Your task to perform on an android device: toggle pop-ups in chrome Image 0: 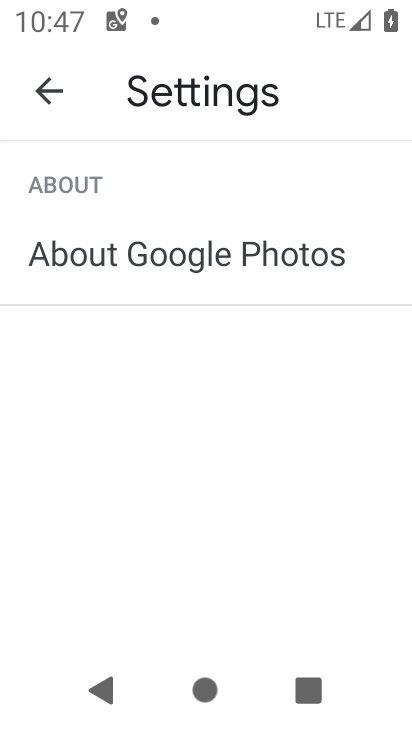
Step 0: press home button
Your task to perform on an android device: toggle pop-ups in chrome Image 1: 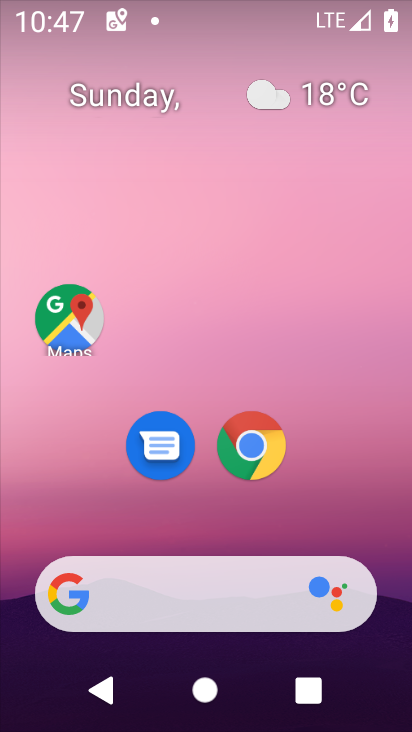
Step 1: click (255, 437)
Your task to perform on an android device: toggle pop-ups in chrome Image 2: 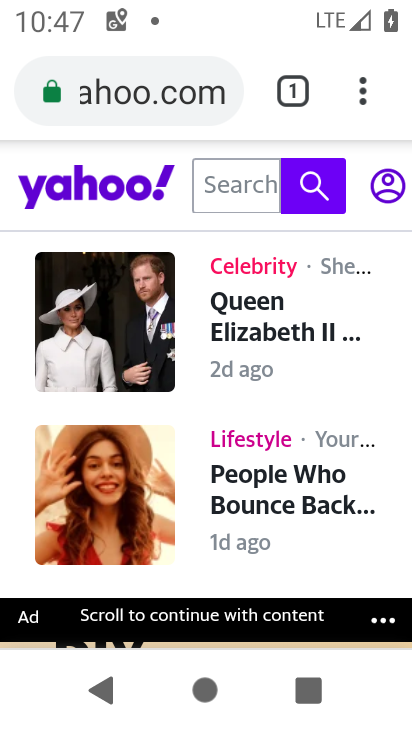
Step 2: click (358, 80)
Your task to perform on an android device: toggle pop-ups in chrome Image 3: 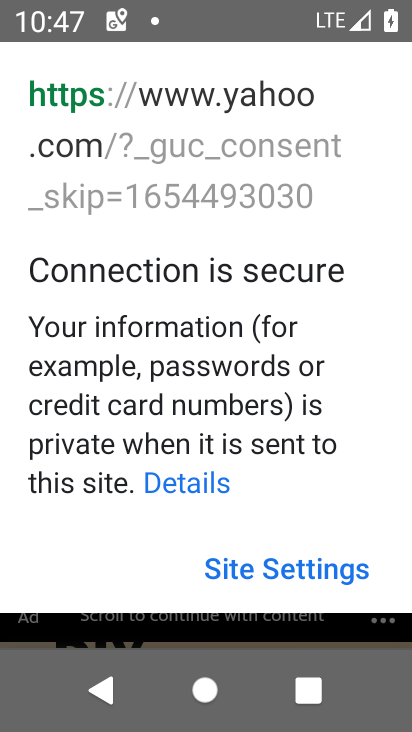
Step 3: press back button
Your task to perform on an android device: toggle pop-ups in chrome Image 4: 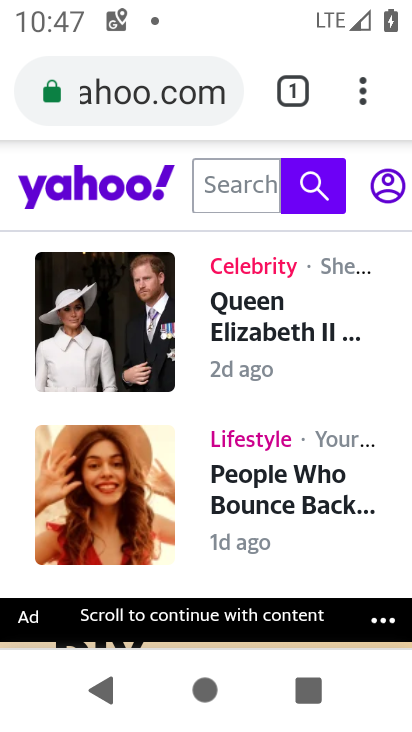
Step 4: click (357, 92)
Your task to perform on an android device: toggle pop-ups in chrome Image 5: 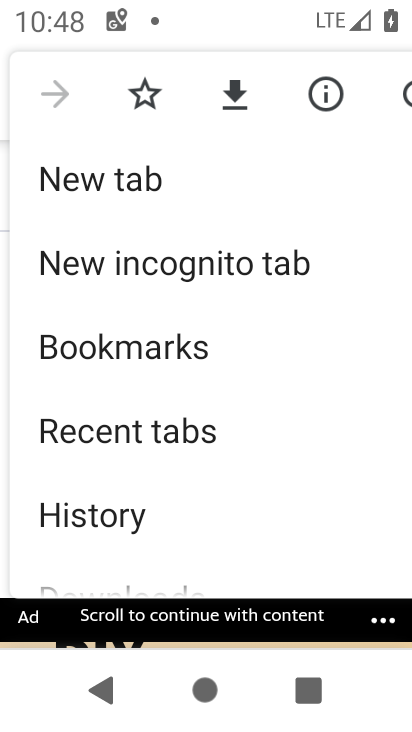
Step 5: drag from (236, 325) to (275, 83)
Your task to perform on an android device: toggle pop-ups in chrome Image 6: 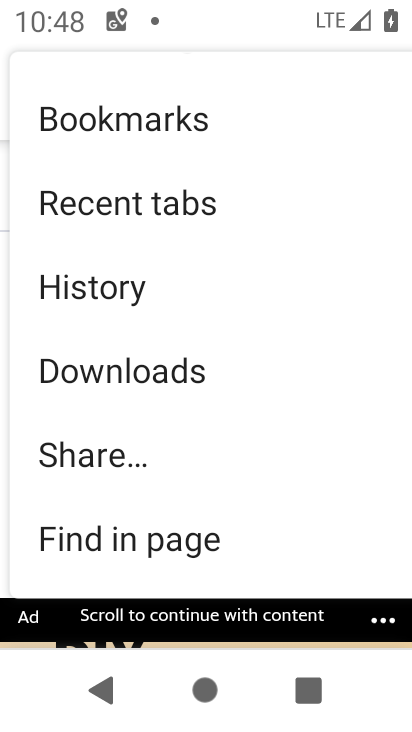
Step 6: drag from (251, 543) to (284, 77)
Your task to perform on an android device: toggle pop-ups in chrome Image 7: 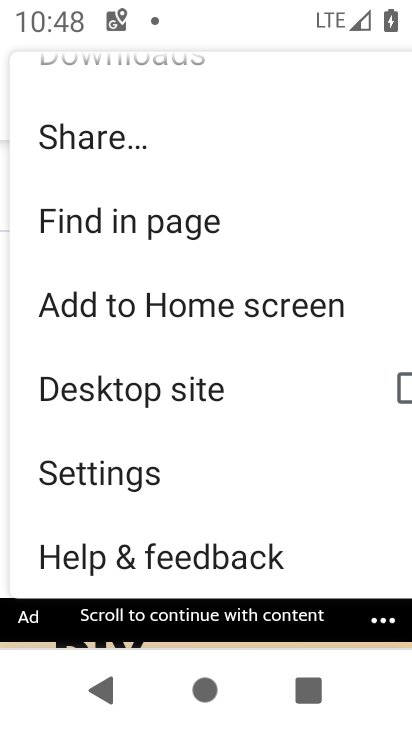
Step 7: click (178, 478)
Your task to perform on an android device: toggle pop-ups in chrome Image 8: 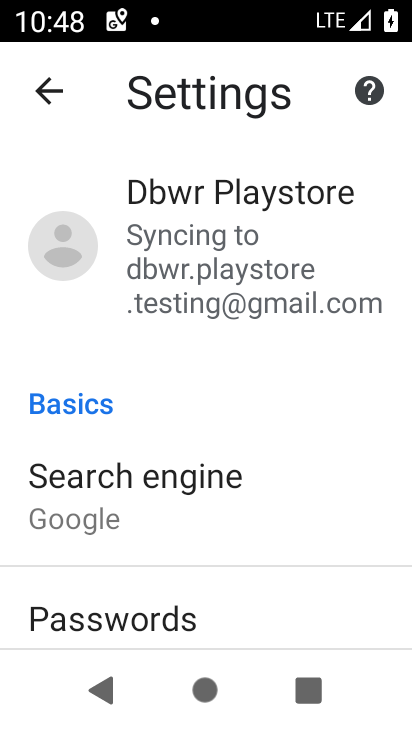
Step 8: drag from (236, 599) to (252, 106)
Your task to perform on an android device: toggle pop-ups in chrome Image 9: 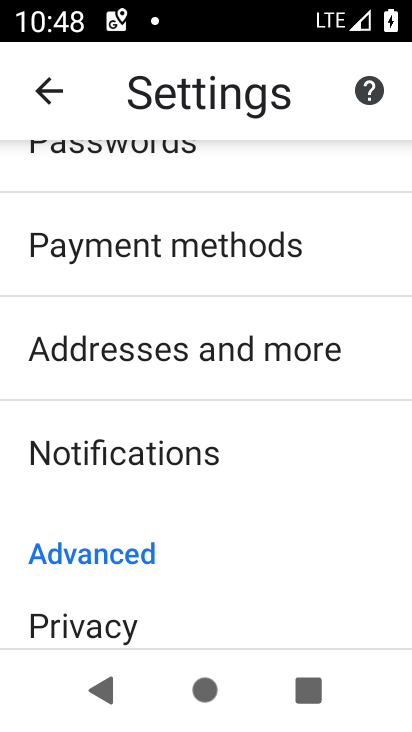
Step 9: drag from (213, 604) to (251, 144)
Your task to perform on an android device: toggle pop-ups in chrome Image 10: 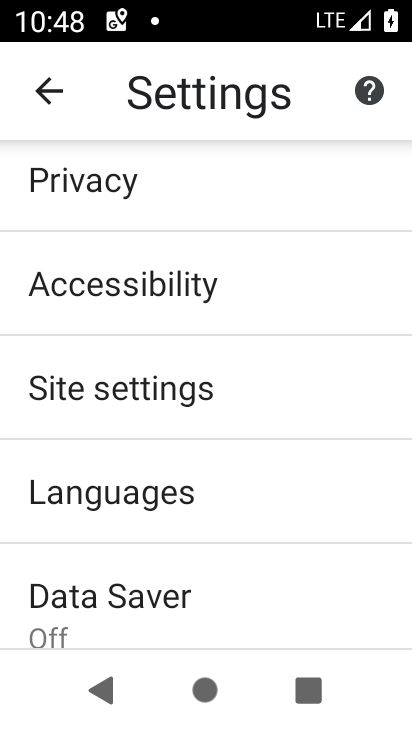
Step 10: click (233, 397)
Your task to perform on an android device: toggle pop-ups in chrome Image 11: 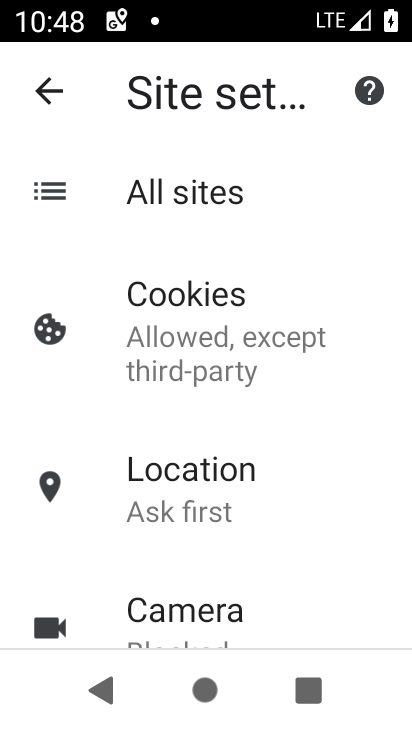
Step 11: drag from (268, 610) to (301, 135)
Your task to perform on an android device: toggle pop-ups in chrome Image 12: 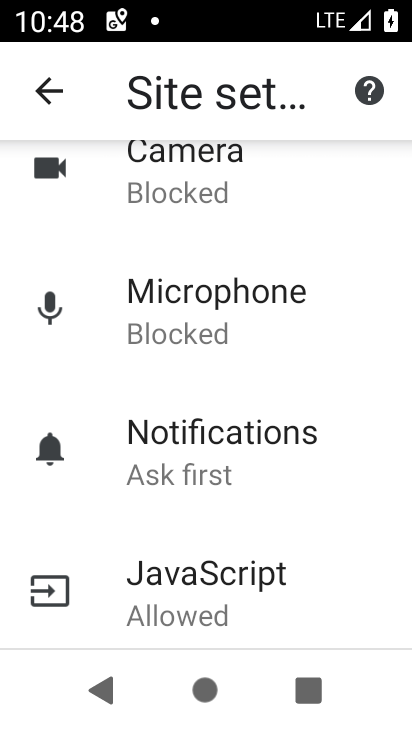
Step 12: drag from (256, 614) to (273, 161)
Your task to perform on an android device: toggle pop-ups in chrome Image 13: 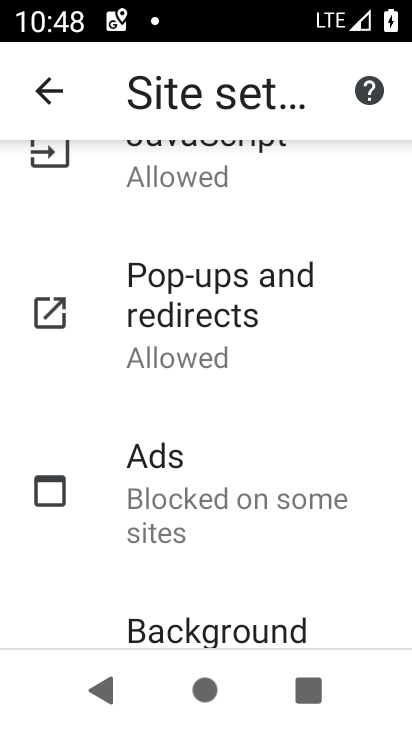
Step 13: click (261, 333)
Your task to perform on an android device: toggle pop-ups in chrome Image 14: 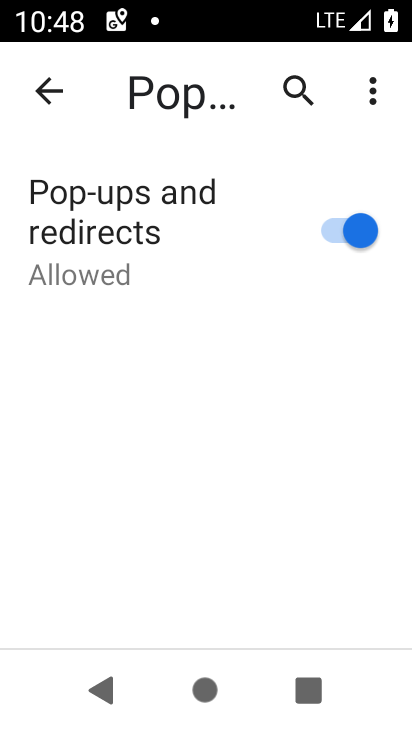
Step 14: click (334, 222)
Your task to perform on an android device: toggle pop-ups in chrome Image 15: 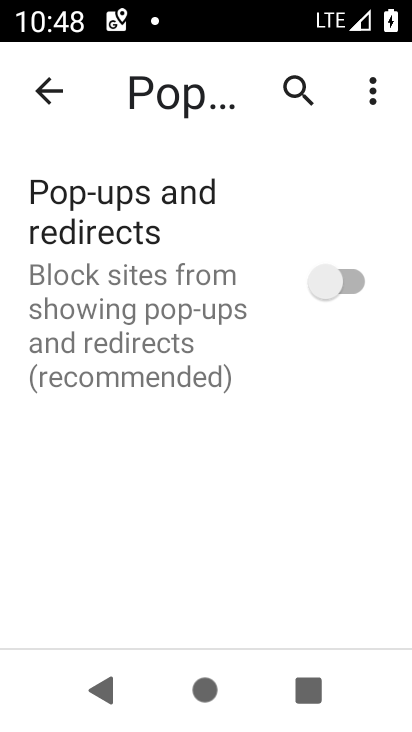
Step 15: task complete